Your task to perform on an android device: Is it going to rain this weekend? Image 0: 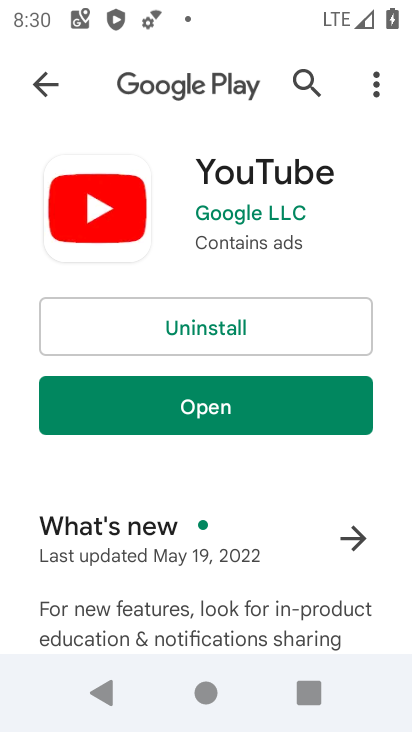
Step 0: press home button
Your task to perform on an android device: Is it going to rain this weekend? Image 1: 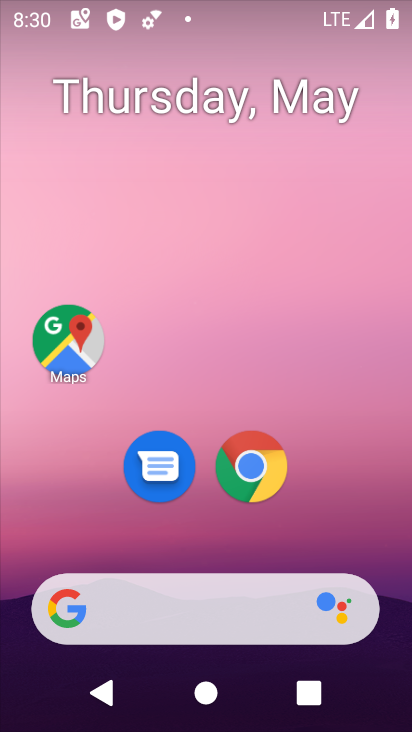
Step 1: click (117, 613)
Your task to perform on an android device: Is it going to rain this weekend? Image 2: 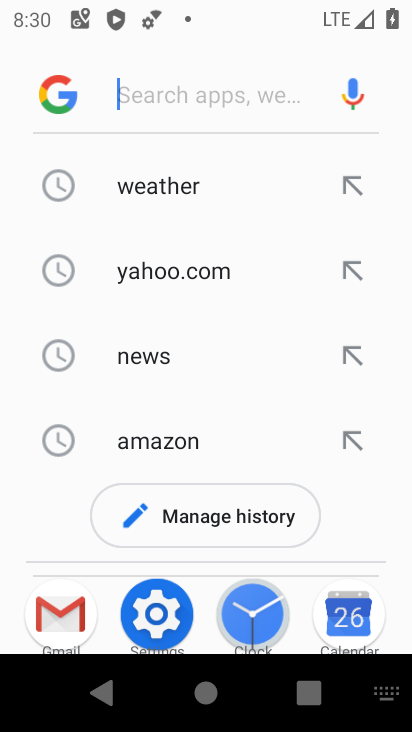
Step 2: click (157, 195)
Your task to perform on an android device: Is it going to rain this weekend? Image 3: 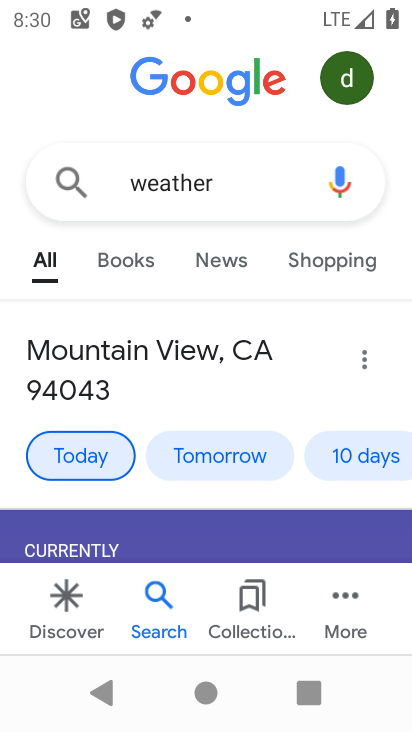
Step 3: click (355, 464)
Your task to perform on an android device: Is it going to rain this weekend? Image 4: 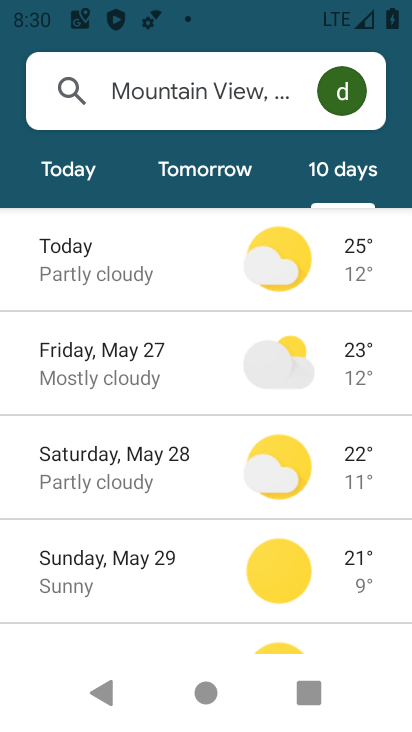
Step 4: task complete